Your task to perform on an android device: toggle sleep mode Image 0: 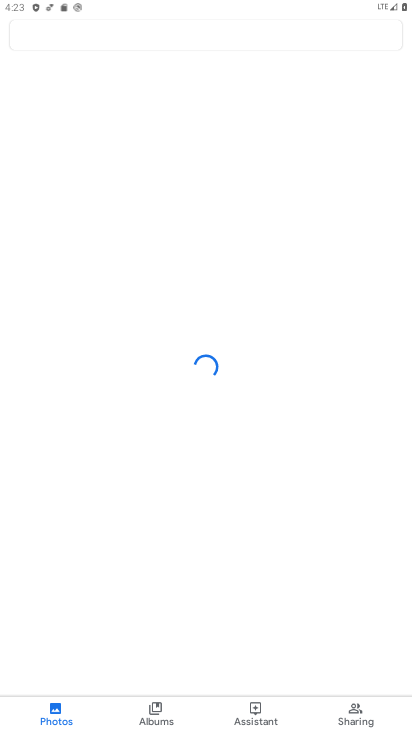
Step 0: press home button
Your task to perform on an android device: toggle sleep mode Image 1: 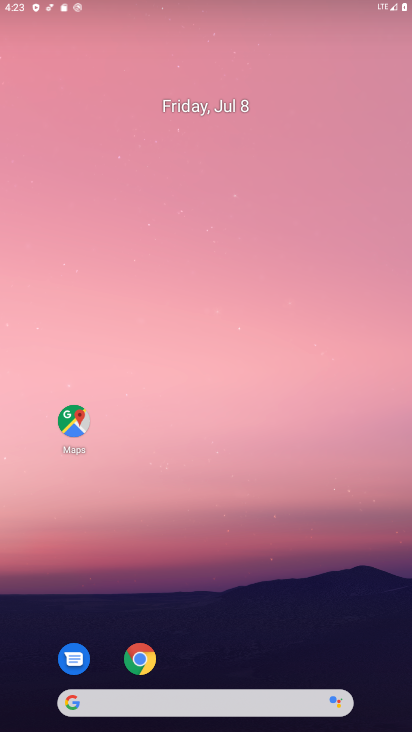
Step 1: drag from (319, 623) to (185, 48)
Your task to perform on an android device: toggle sleep mode Image 2: 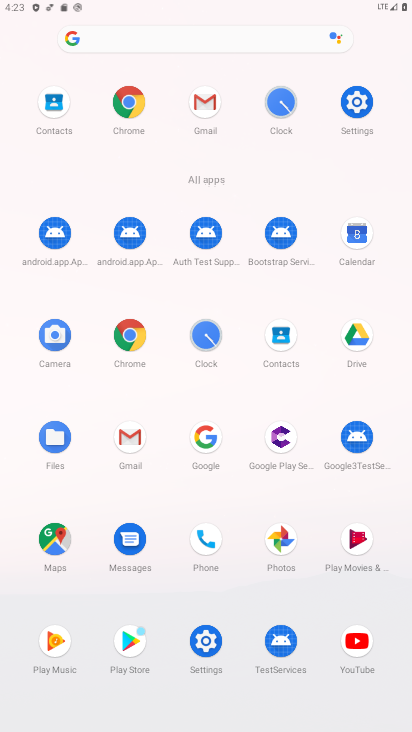
Step 2: click (360, 101)
Your task to perform on an android device: toggle sleep mode Image 3: 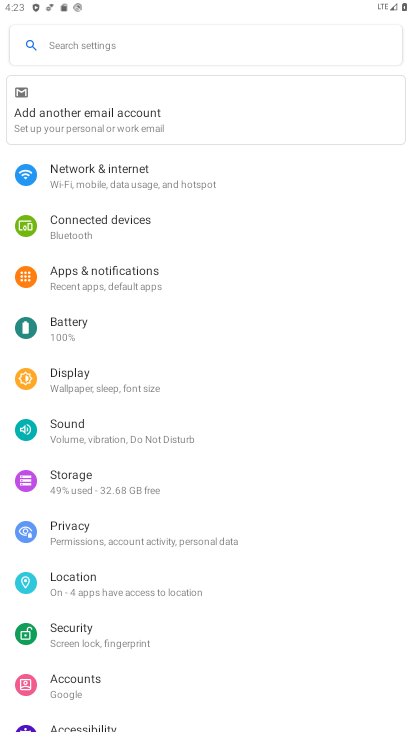
Step 3: click (48, 384)
Your task to perform on an android device: toggle sleep mode Image 4: 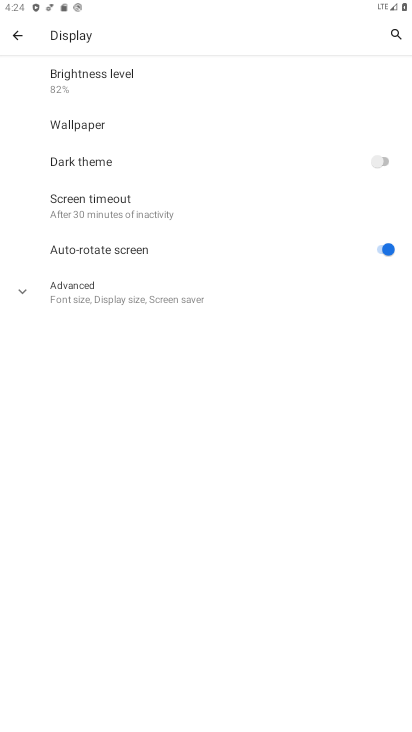
Step 4: task complete